Your task to perform on an android device: What's the weather going to be this weekend? Image 0: 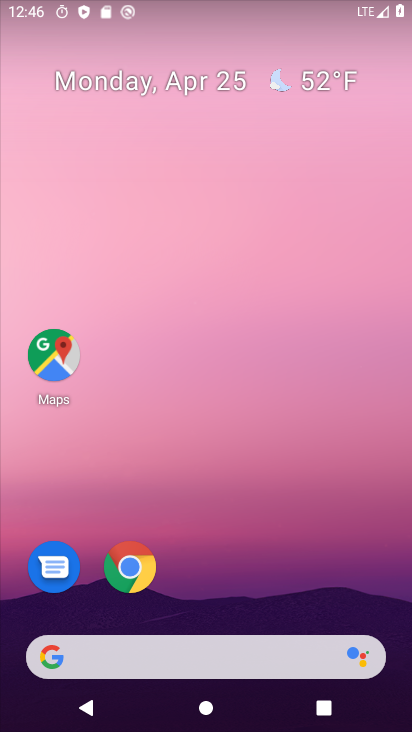
Step 0: click (288, 87)
Your task to perform on an android device: What's the weather going to be this weekend? Image 1: 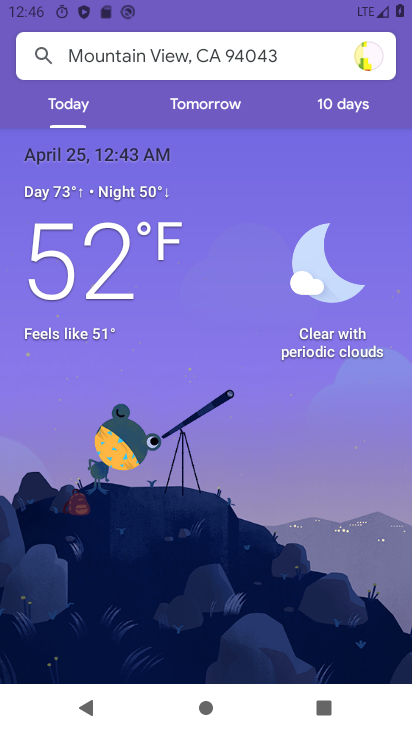
Step 1: click (334, 101)
Your task to perform on an android device: What's the weather going to be this weekend? Image 2: 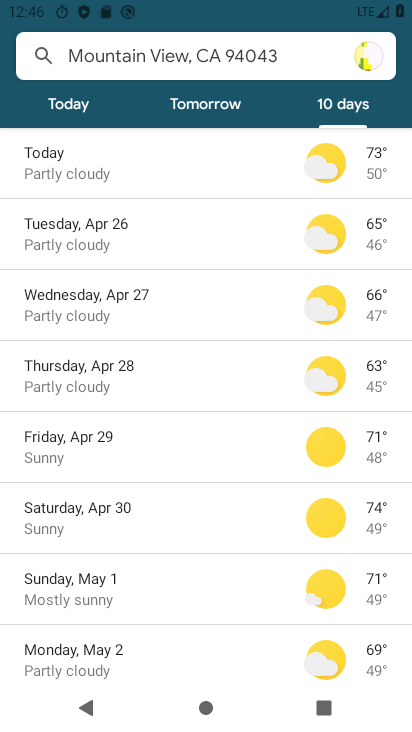
Step 2: click (169, 503)
Your task to perform on an android device: What's the weather going to be this weekend? Image 3: 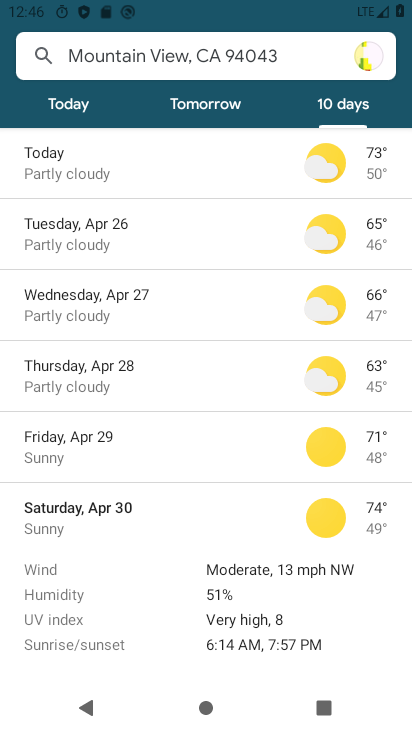
Step 3: task complete